Your task to perform on an android device: Search for Italian restaurants on Maps Image 0: 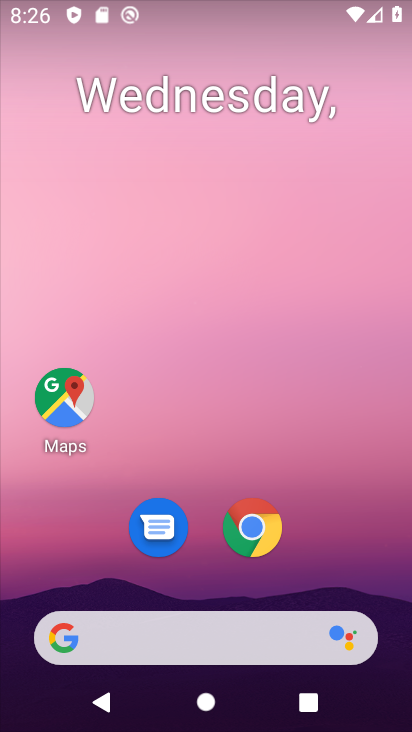
Step 0: click (32, 385)
Your task to perform on an android device: Search for Italian restaurants on Maps Image 1: 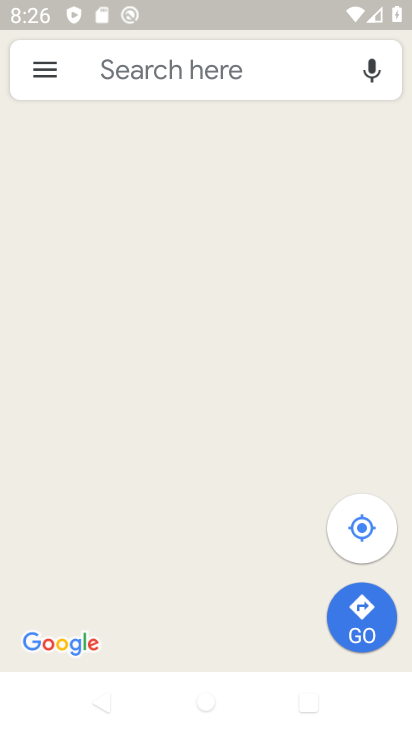
Step 1: click (223, 84)
Your task to perform on an android device: Search for Italian restaurants on Maps Image 2: 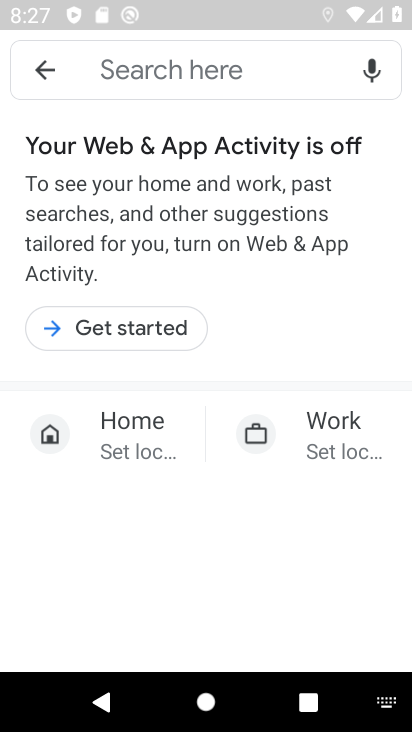
Step 2: type "Italian restaurants"
Your task to perform on an android device: Search for Italian restaurants on Maps Image 3: 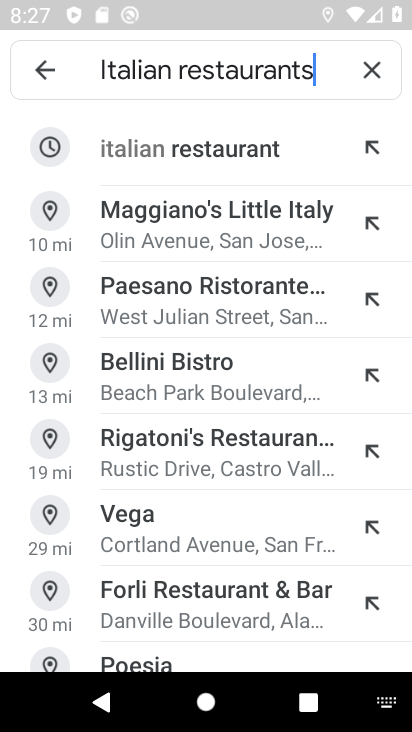
Step 3: press enter
Your task to perform on an android device: Search for Italian restaurants on Maps Image 4: 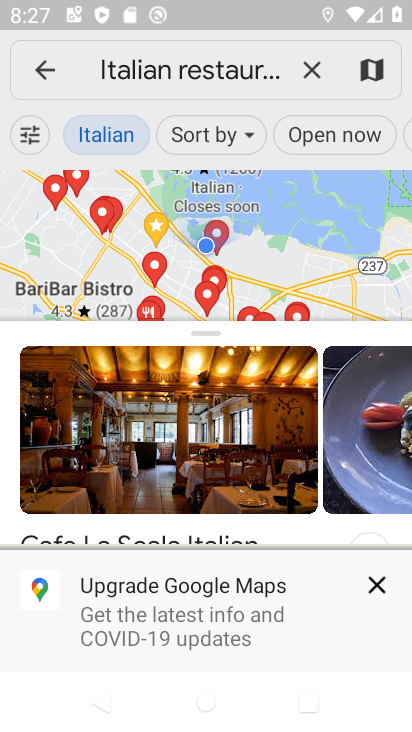
Step 4: task complete